Your task to perform on an android device: toggle pop-ups in chrome Image 0: 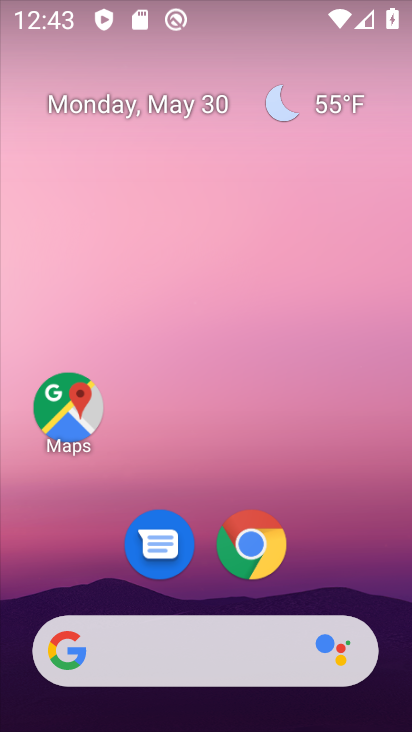
Step 0: click (257, 557)
Your task to perform on an android device: toggle pop-ups in chrome Image 1: 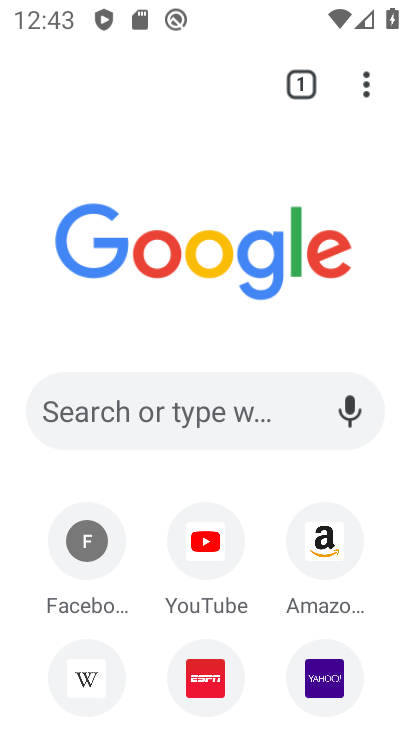
Step 1: click (364, 90)
Your task to perform on an android device: toggle pop-ups in chrome Image 2: 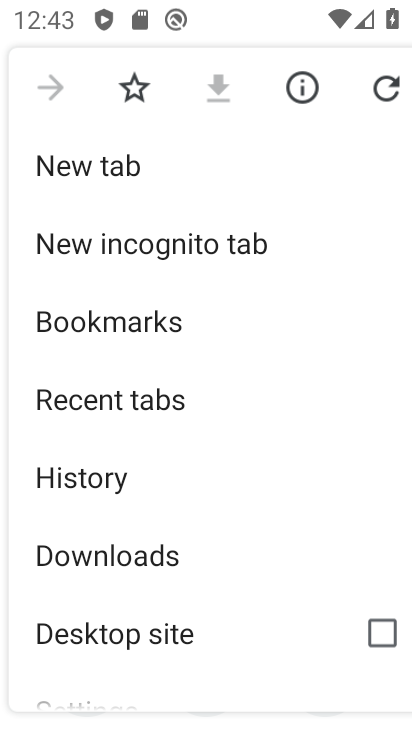
Step 2: drag from (231, 574) to (229, 202)
Your task to perform on an android device: toggle pop-ups in chrome Image 3: 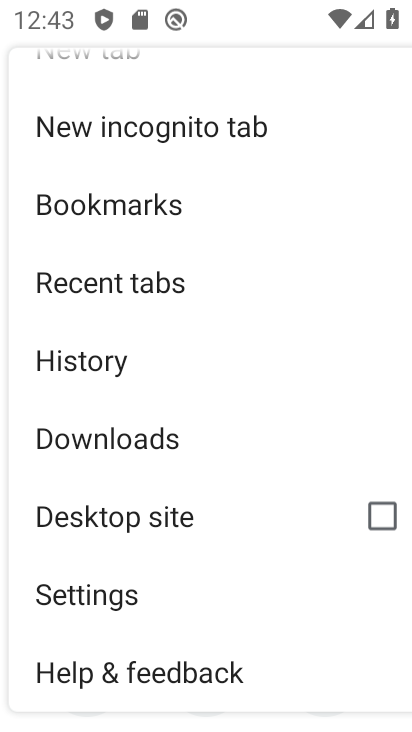
Step 3: click (129, 602)
Your task to perform on an android device: toggle pop-ups in chrome Image 4: 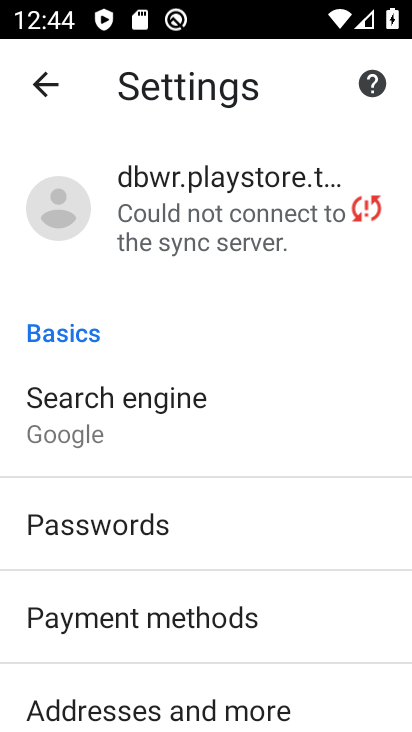
Step 4: drag from (231, 597) to (216, 170)
Your task to perform on an android device: toggle pop-ups in chrome Image 5: 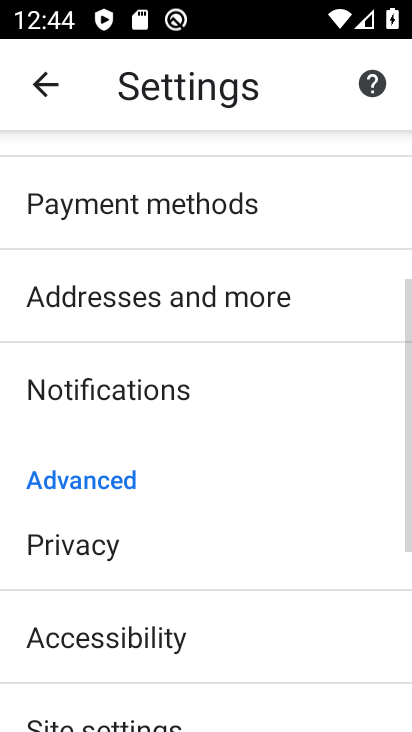
Step 5: drag from (172, 671) to (182, 363)
Your task to perform on an android device: toggle pop-ups in chrome Image 6: 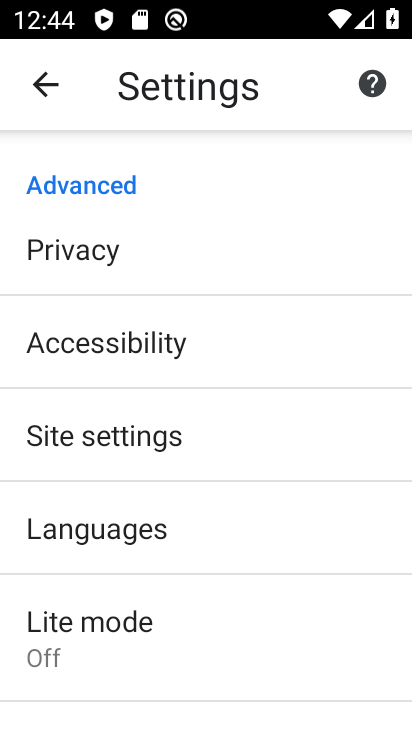
Step 6: click (134, 442)
Your task to perform on an android device: toggle pop-ups in chrome Image 7: 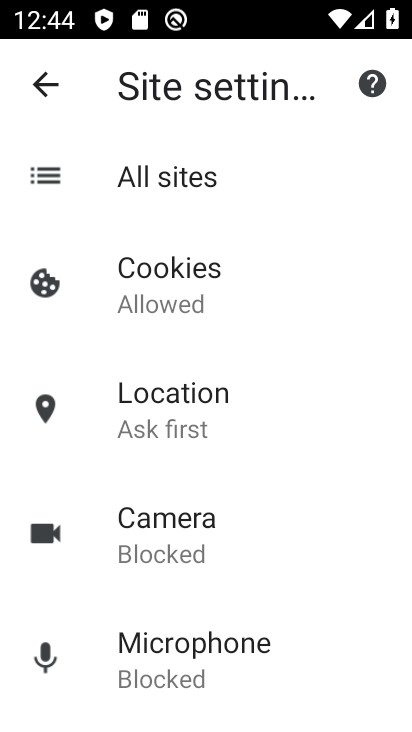
Step 7: drag from (205, 586) to (206, 195)
Your task to perform on an android device: toggle pop-ups in chrome Image 8: 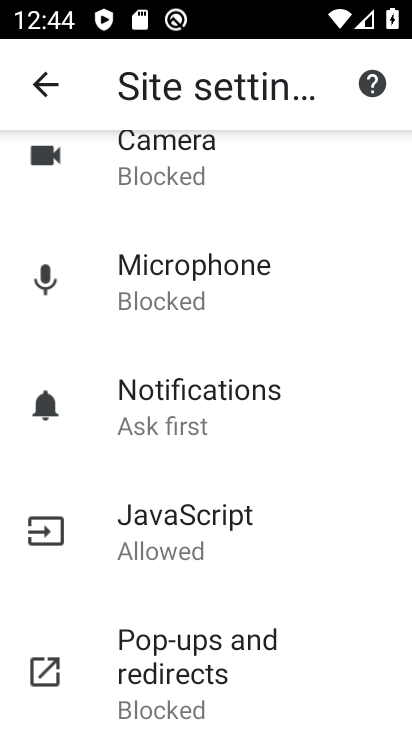
Step 8: drag from (190, 643) to (160, 349)
Your task to perform on an android device: toggle pop-ups in chrome Image 9: 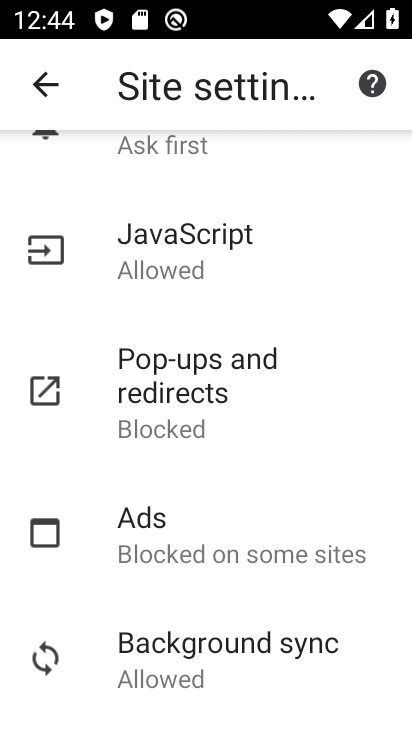
Step 9: click (161, 433)
Your task to perform on an android device: toggle pop-ups in chrome Image 10: 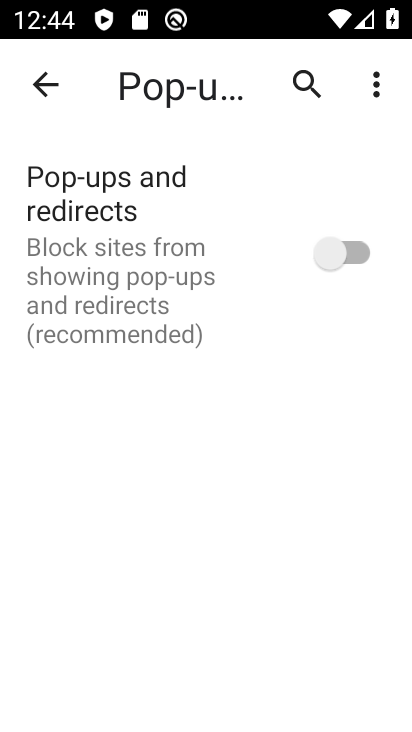
Step 10: click (356, 258)
Your task to perform on an android device: toggle pop-ups in chrome Image 11: 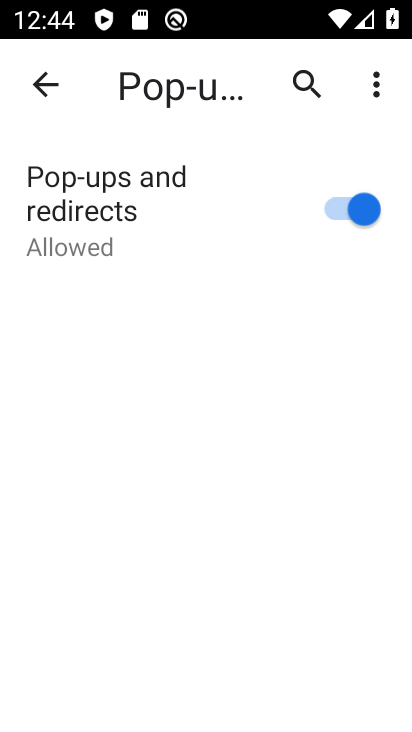
Step 11: task complete